Your task to perform on an android device: delete a single message in the gmail app Image 0: 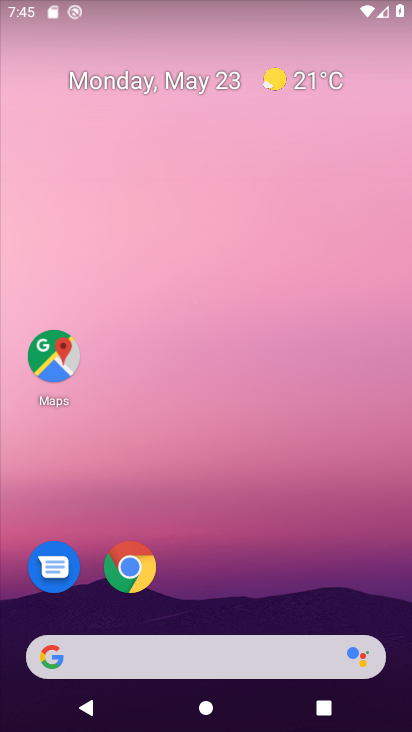
Step 0: drag from (188, 613) to (305, 140)
Your task to perform on an android device: delete a single message in the gmail app Image 1: 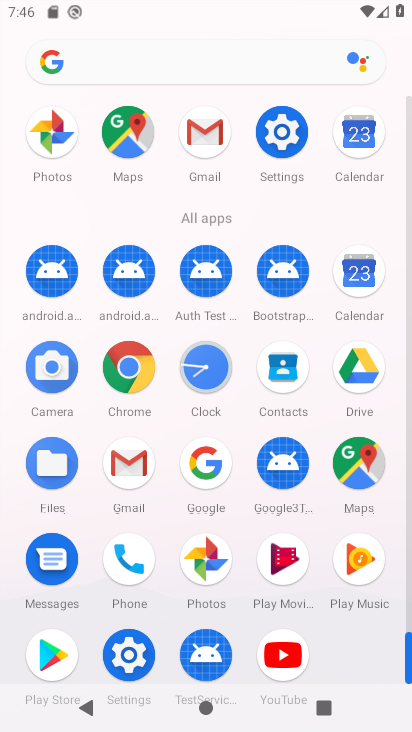
Step 1: click (131, 463)
Your task to perform on an android device: delete a single message in the gmail app Image 2: 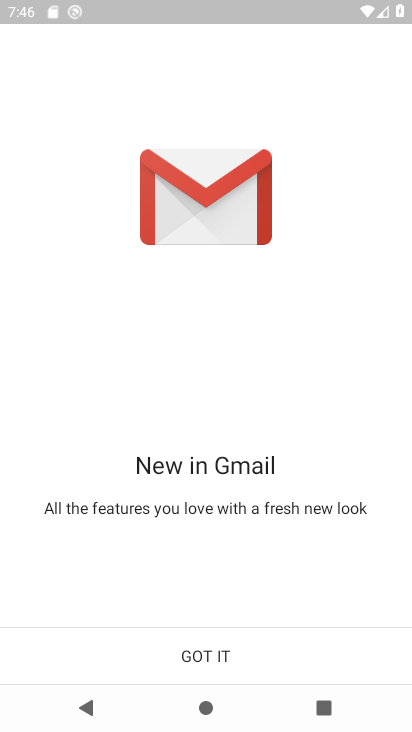
Step 2: click (277, 657)
Your task to perform on an android device: delete a single message in the gmail app Image 3: 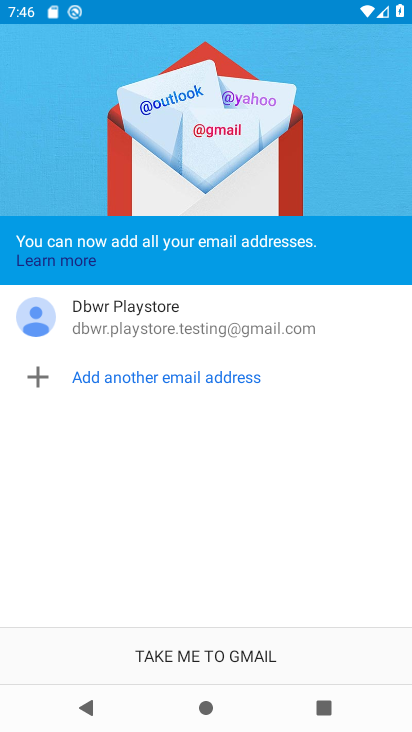
Step 3: click (277, 656)
Your task to perform on an android device: delete a single message in the gmail app Image 4: 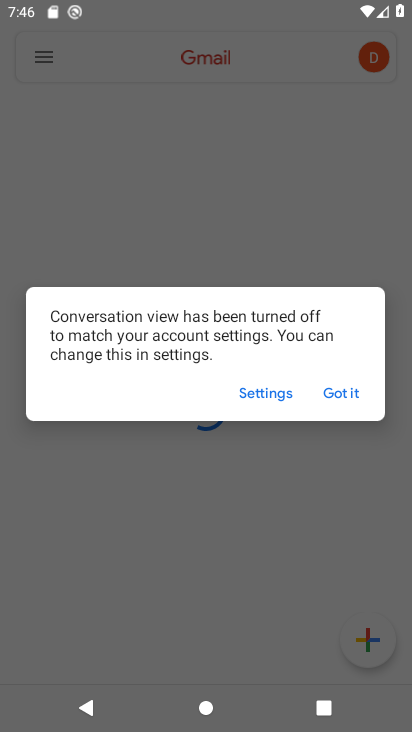
Step 4: click (336, 388)
Your task to perform on an android device: delete a single message in the gmail app Image 5: 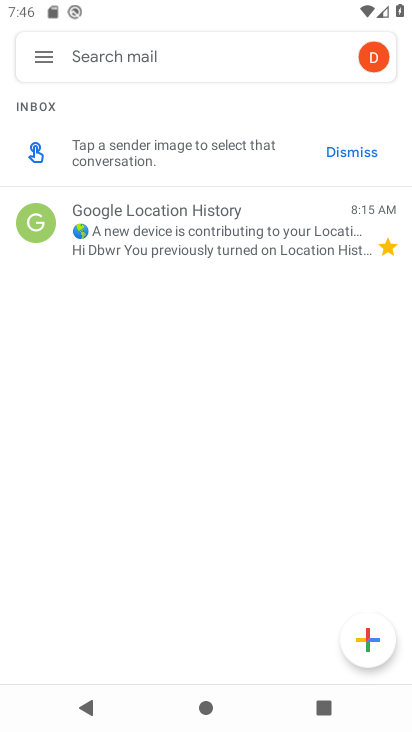
Step 5: click (201, 238)
Your task to perform on an android device: delete a single message in the gmail app Image 6: 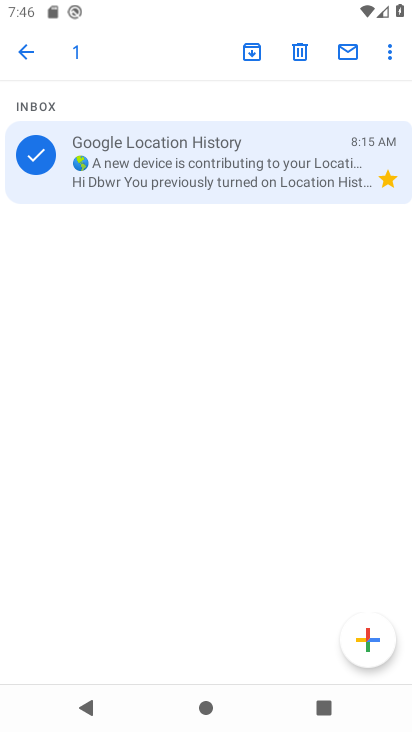
Step 6: click (301, 53)
Your task to perform on an android device: delete a single message in the gmail app Image 7: 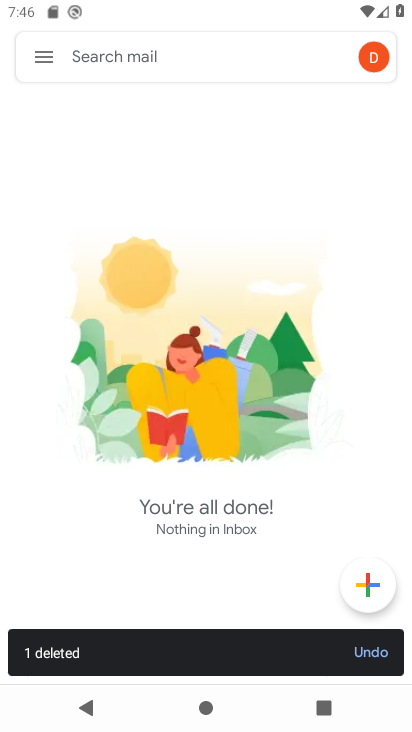
Step 7: task complete